Your task to perform on an android device: Go to calendar. Show me events next week Image 0: 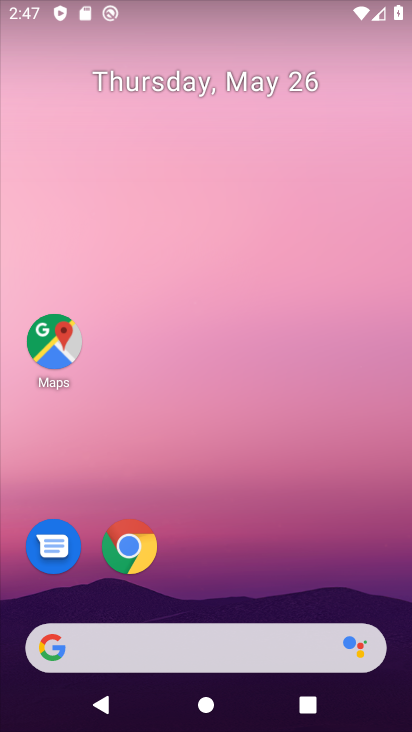
Step 0: click (195, 83)
Your task to perform on an android device: Go to calendar. Show me events next week Image 1: 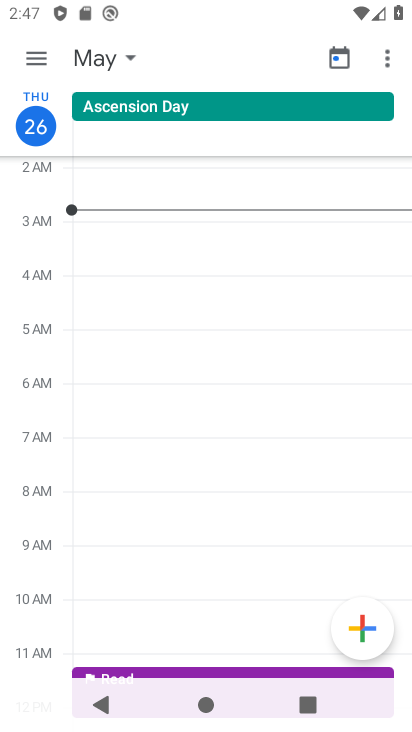
Step 1: click (43, 53)
Your task to perform on an android device: Go to calendar. Show me events next week Image 2: 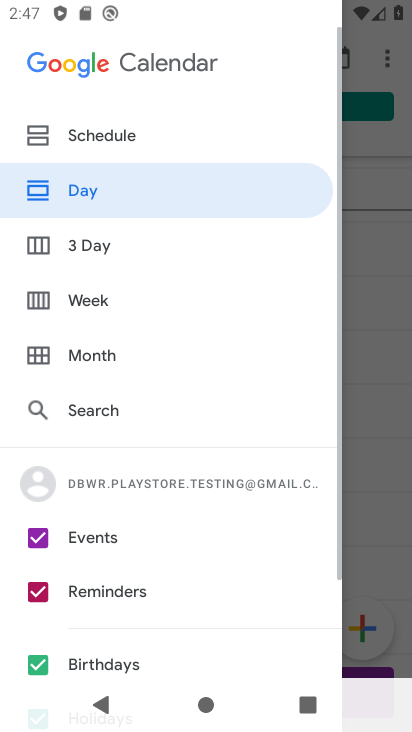
Step 2: click (121, 296)
Your task to perform on an android device: Go to calendar. Show me events next week Image 3: 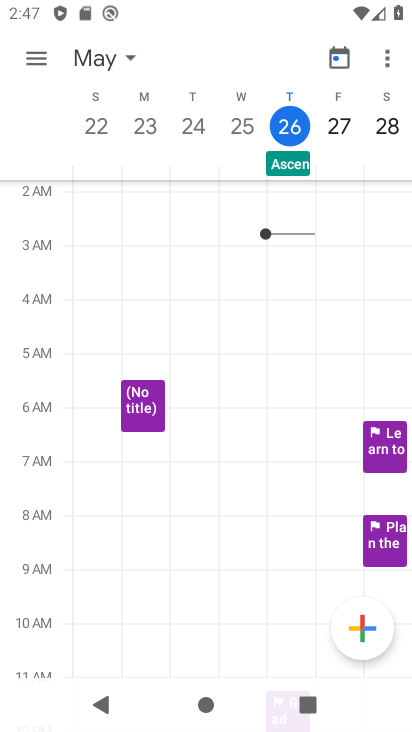
Step 3: click (123, 59)
Your task to perform on an android device: Go to calendar. Show me events next week Image 4: 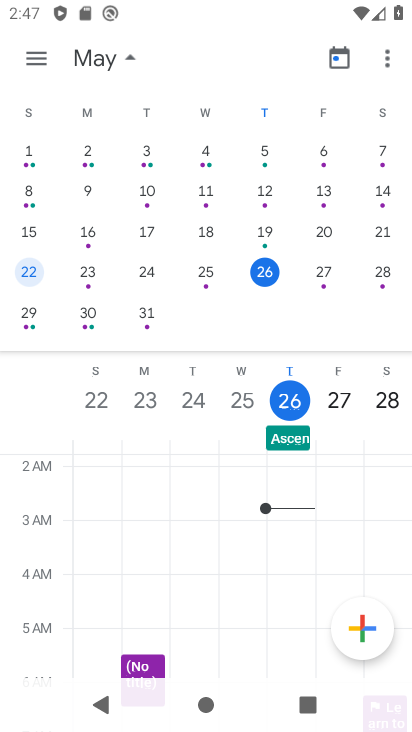
Step 4: click (27, 314)
Your task to perform on an android device: Go to calendar. Show me events next week Image 5: 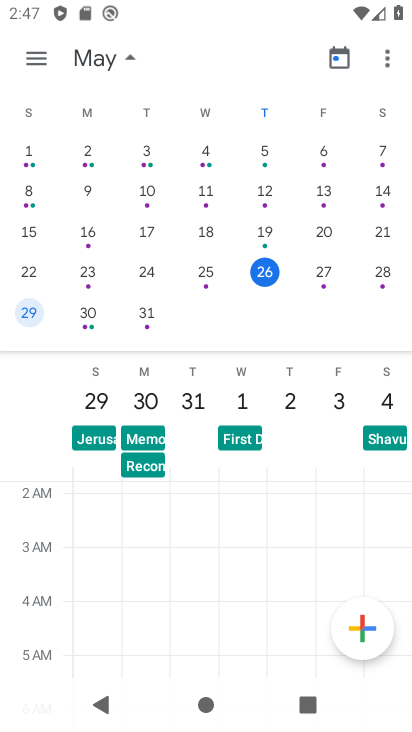
Step 5: task complete